Your task to perform on an android device: Clear the cart on amazon.com. Search for razer nari on amazon.com, select the first entry, add it to the cart, then select checkout. Image 0: 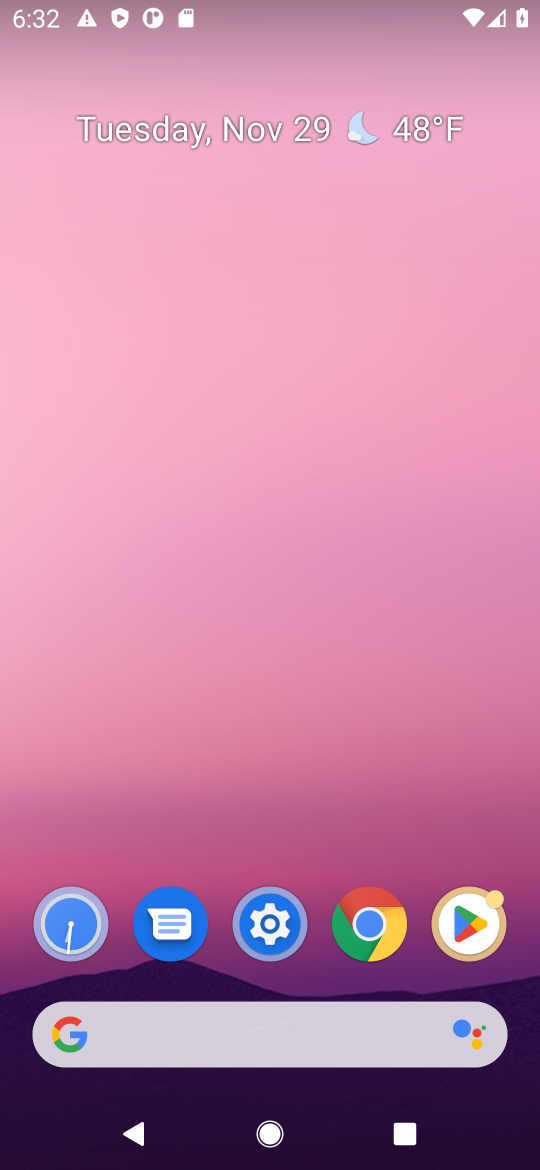
Step 0: click (261, 1050)
Your task to perform on an android device: Clear the cart on amazon.com. Search for razer nari on amazon.com, select the first entry, add it to the cart, then select checkout. Image 1: 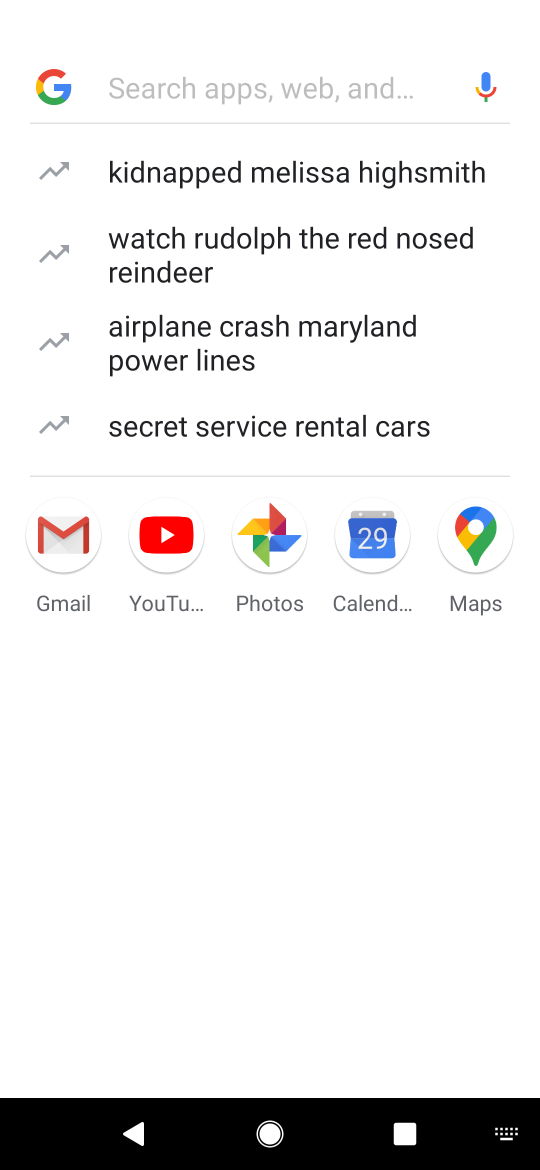
Step 1: type "amazon"
Your task to perform on an android device: Clear the cart on amazon.com. Search for razer nari on amazon.com, select the first entry, add it to the cart, then select checkout. Image 2: 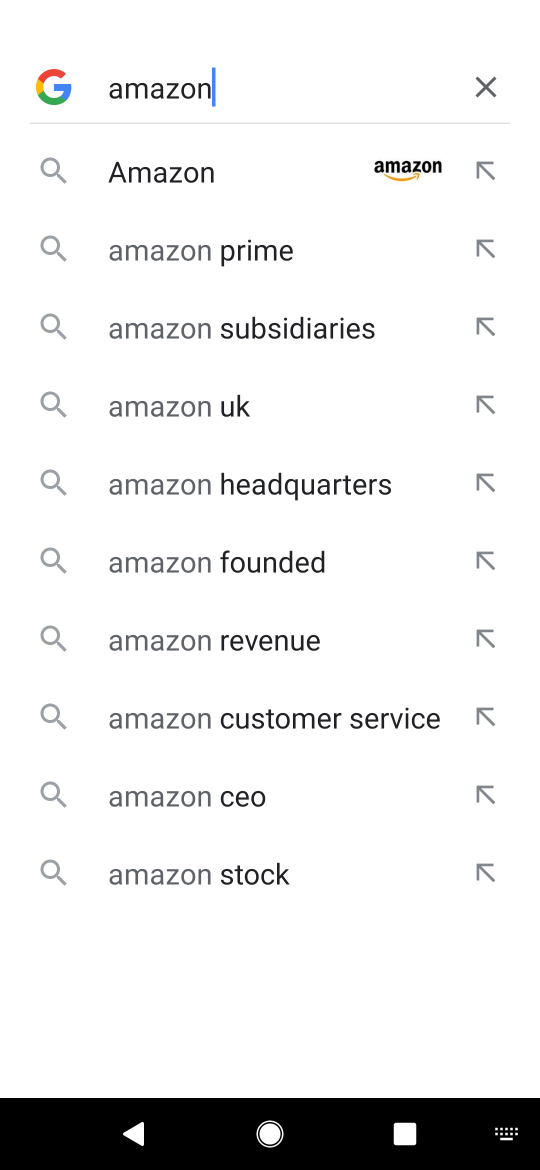
Step 2: click (203, 190)
Your task to perform on an android device: Clear the cart on amazon.com. Search for razer nari on amazon.com, select the first entry, add it to the cart, then select checkout. Image 3: 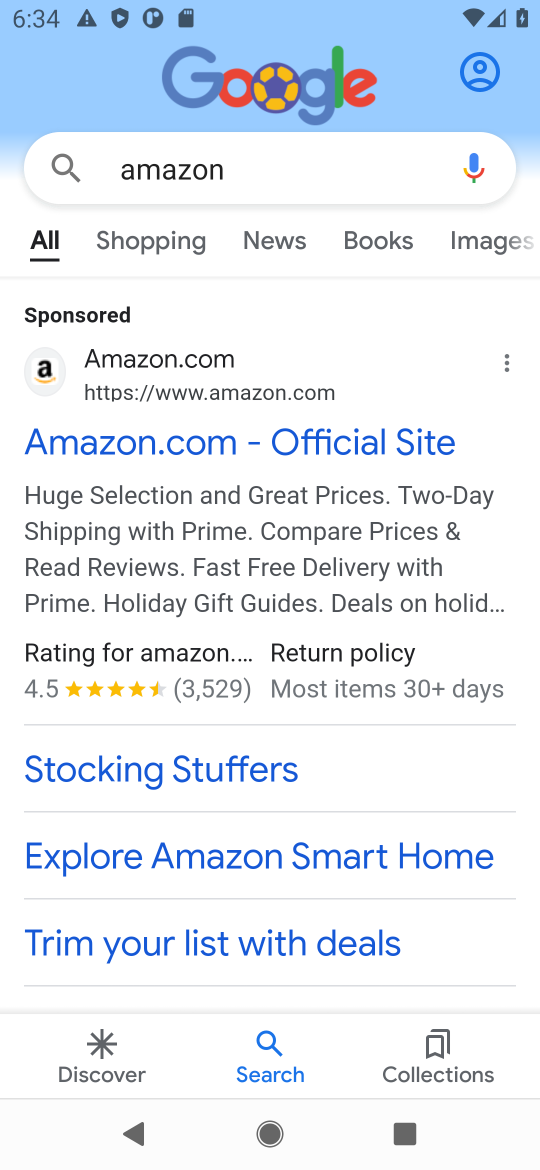
Step 3: click (141, 454)
Your task to perform on an android device: Clear the cart on amazon.com. Search for razer nari on amazon.com, select the first entry, add it to the cart, then select checkout. Image 4: 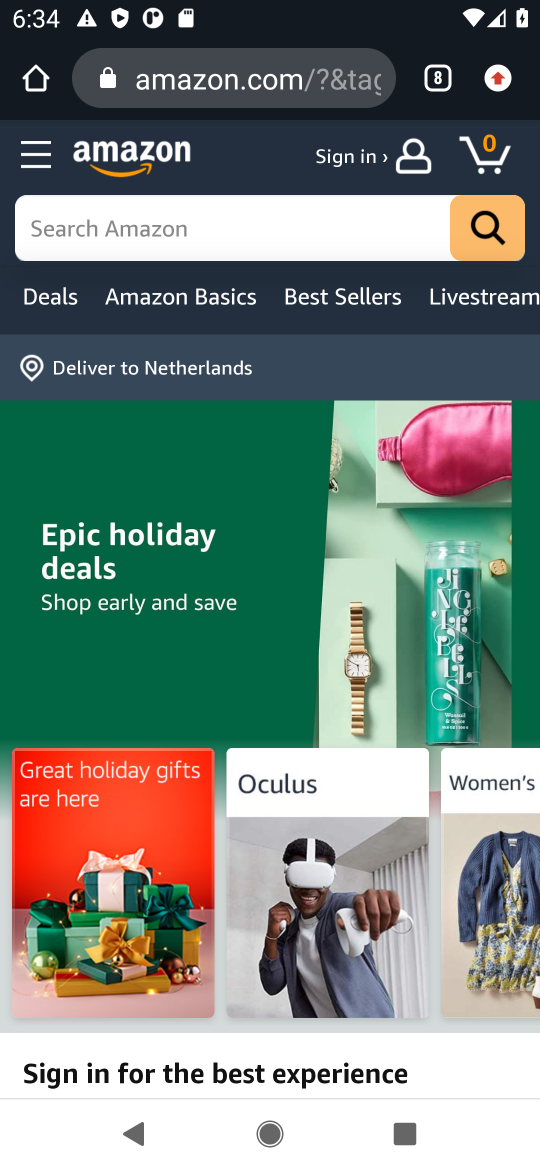
Step 4: task complete